Your task to perform on an android device: turn on improve location accuracy Image 0: 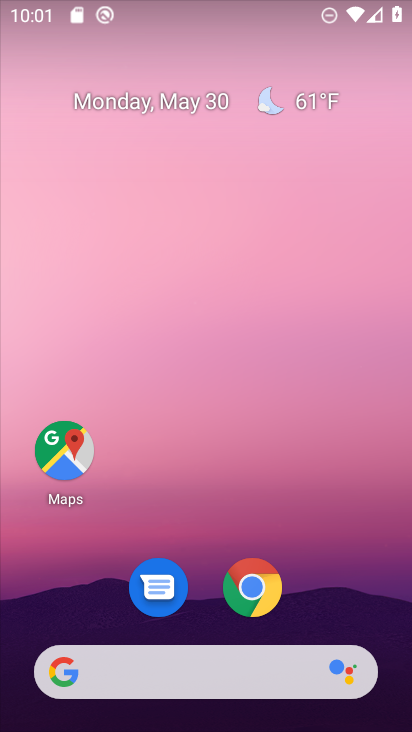
Step 0: drag from (205, 646) to (121, 41)
Your task to perform on an android device: turn on improve location accuracy Image 1: 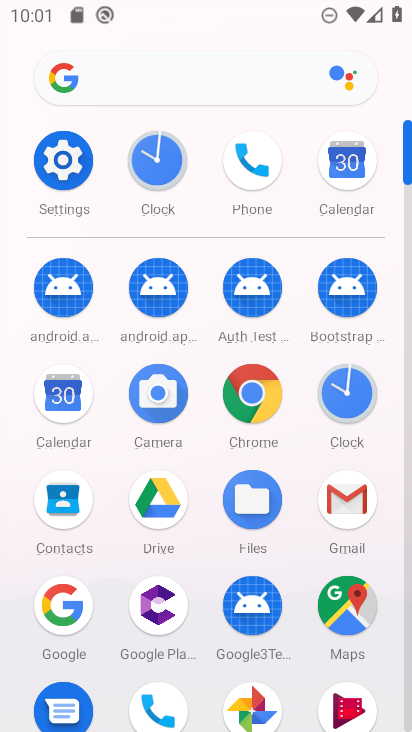
Step 1: click (74, 160)
Your task to perform on an android device: turn on improve location accuracy Image 2: 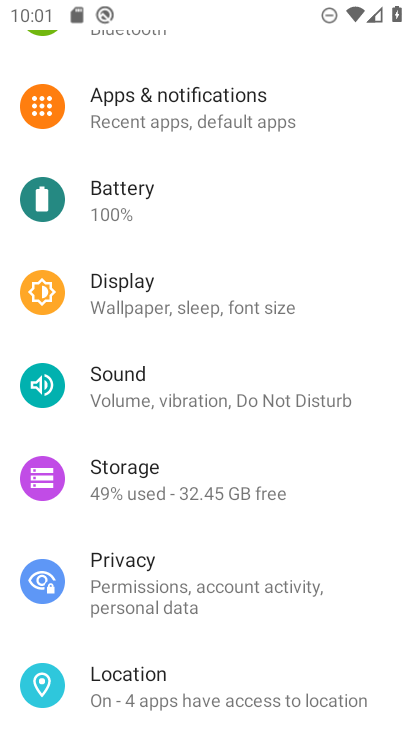
Step 2: click (168, 686)
Your task to perform on an android device: turn on improve location accuracy Image 3: 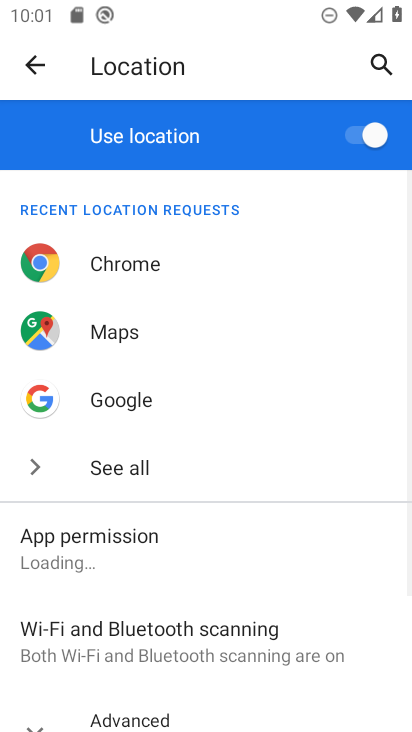
Step 3: drag from (180, 636) to (169, 184)
Your task to perform on an android device: turn on improve location accuracy Image 4: 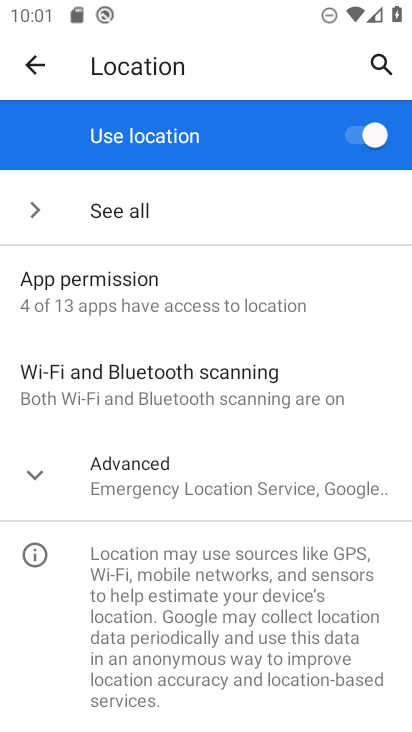
Step 4: click (172, 485)
Your task to perform on an android device: turn on improve location accuracy Image 5: 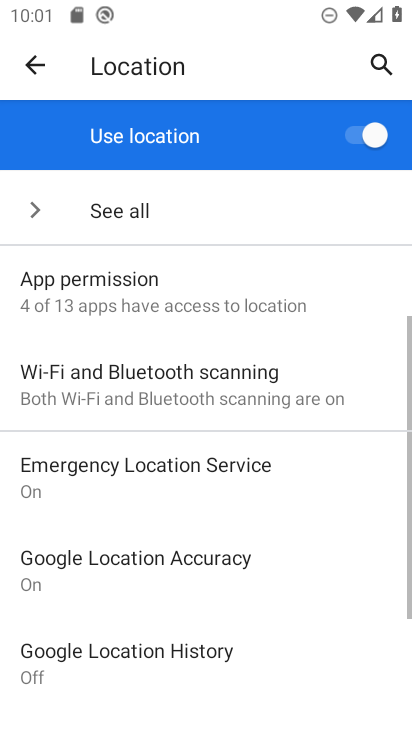
Step 5: click (196, 557)
Your task to perform on an android device: turn on improve location accuracy Image 6: 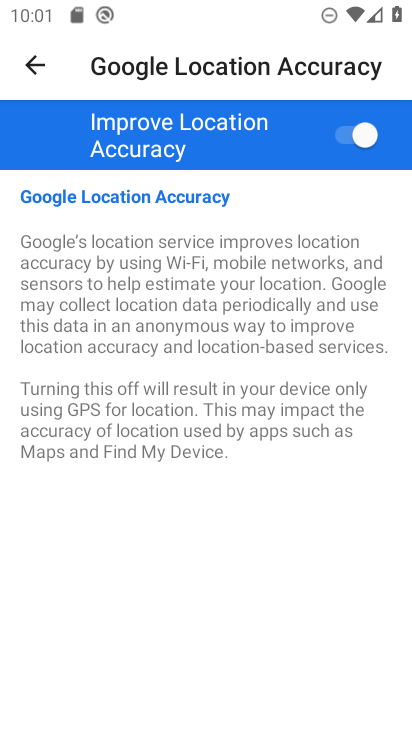
Step 6: task complete